Your task to perform on an android device: Search for the best websites on the internet Image 0: 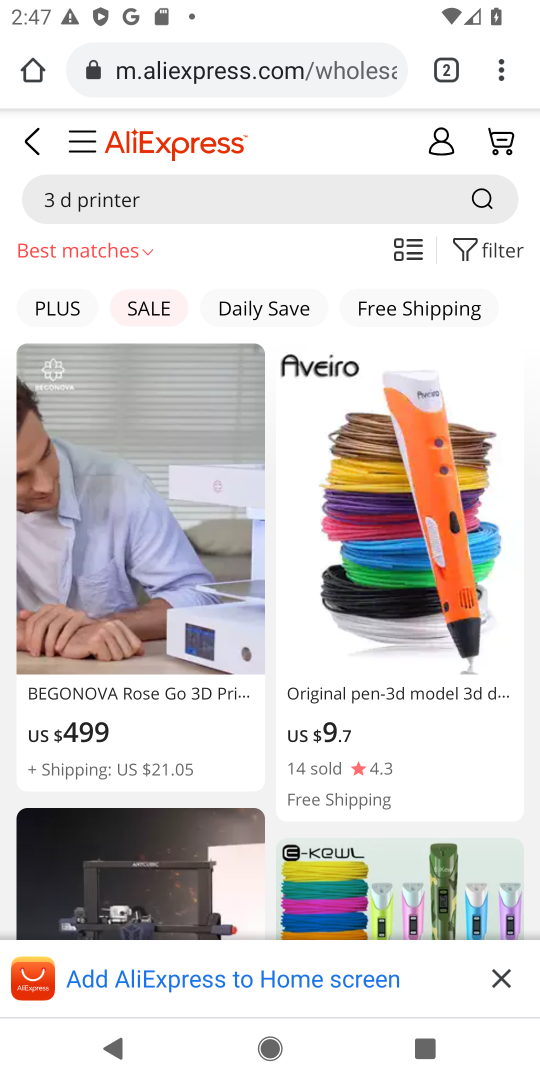
Step 0: press home button
Your task to perform on an android device: Search for the best websites on the internet Image 1: 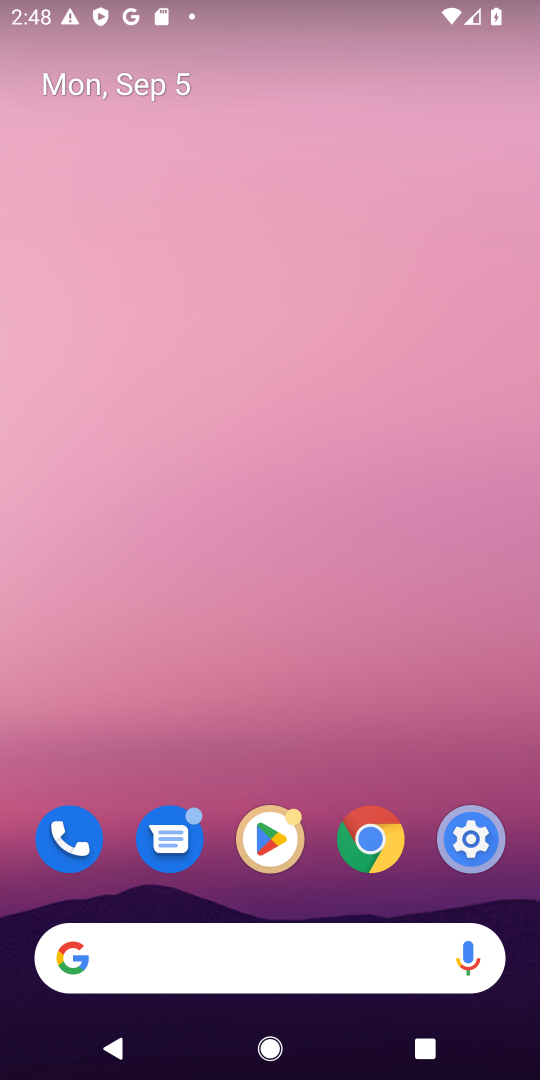
Step 1: click (236, 960)
Your task to perform on an android device: Search for the best websites on the internet Image 2: 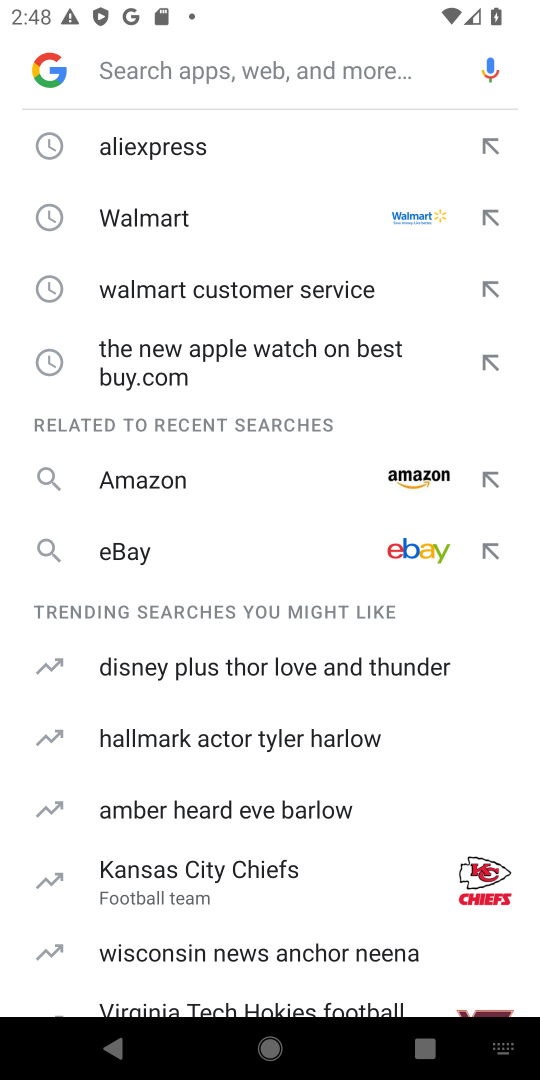
Step 2: type "best websites on the internet"
Your task to perform on an android device: Search for the best websites on the internet Image 3: 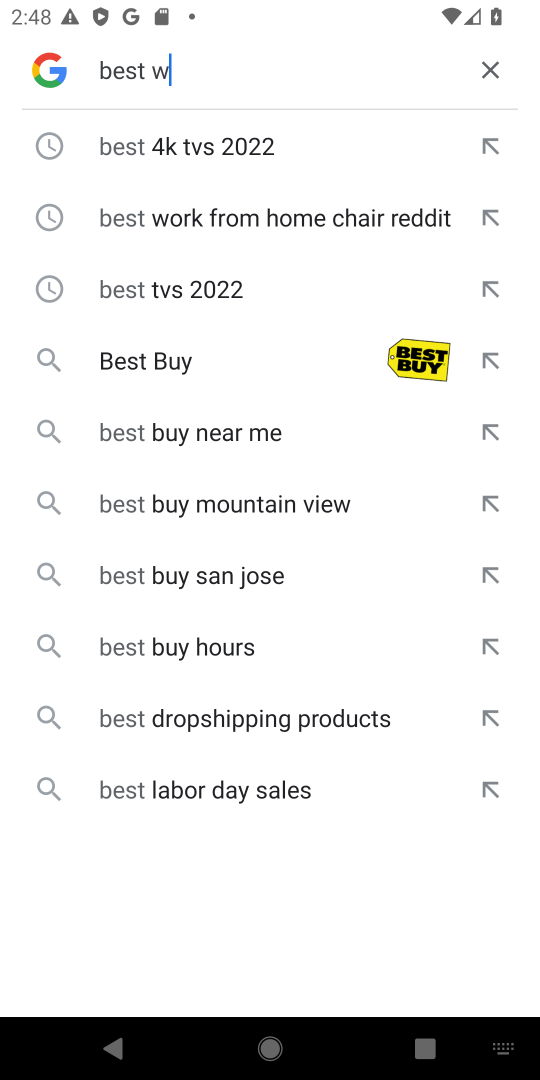
Step 3: type ""
Your task to perform on an android device: Search for the best websites on the internet Image 4: 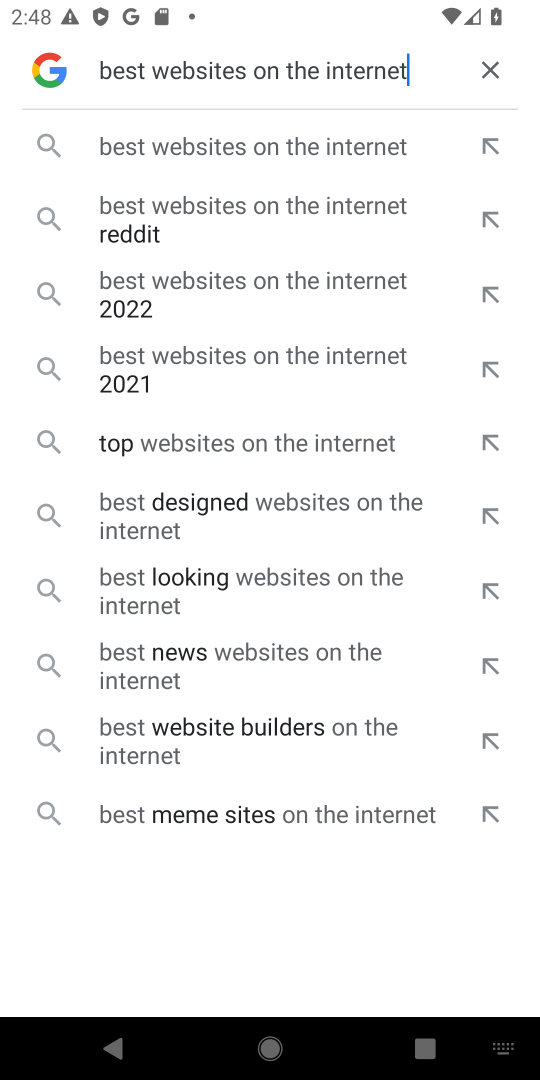
Step 4: click (330, 169)
Your task to perform on an android device: Search for the best websites on the internet Image 5: 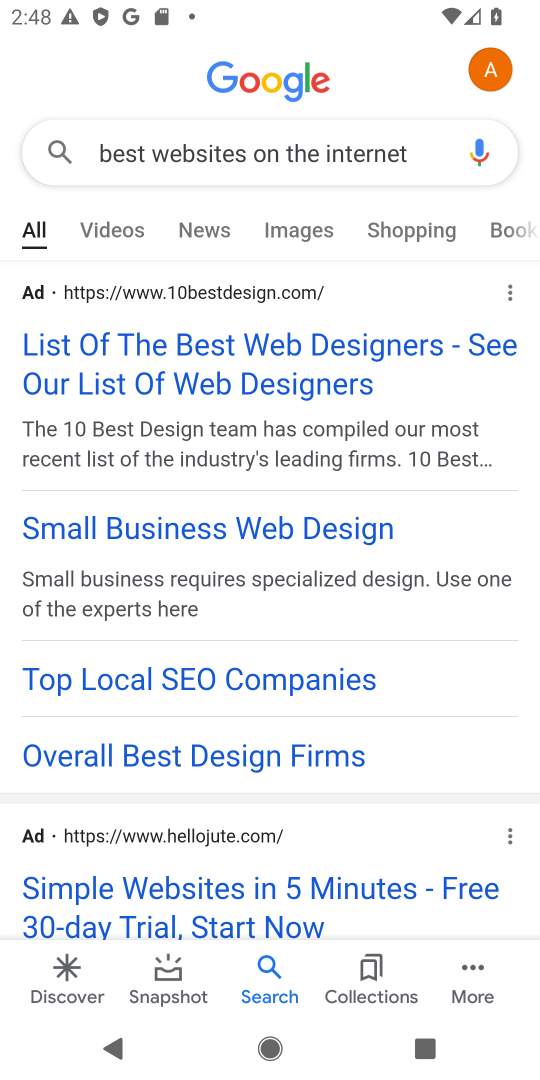
Step 5: task complete